Your task to perform on an android device: Open Android settings Image 0: 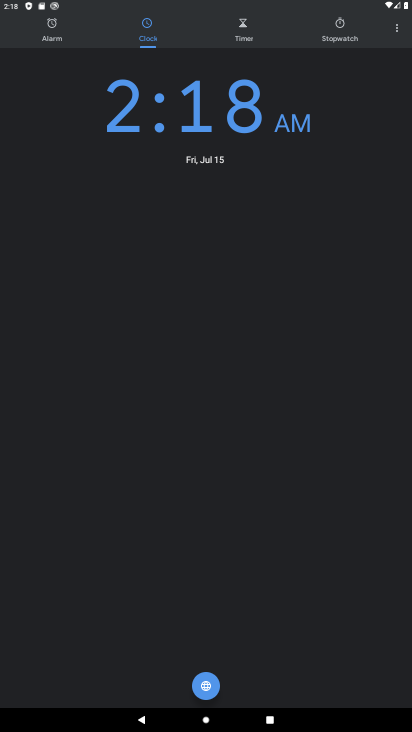
Step 0: press back button
Your task to perform on an android device: Open Android settings Image 1: 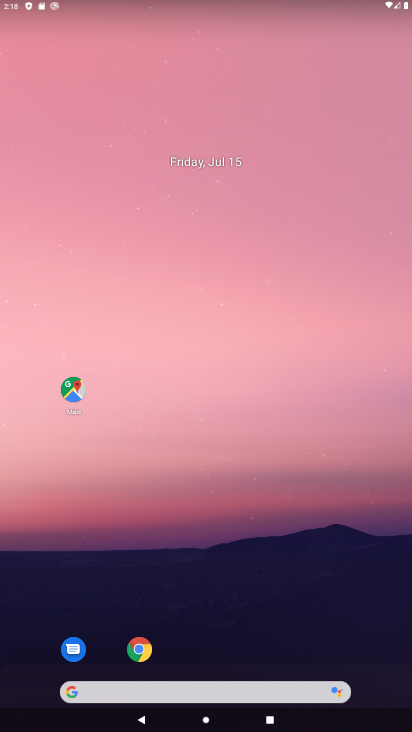
Step 1: drag from (204, 626) to (162, 27)
Your task to perform on an android device: Open Android settings Image 2: 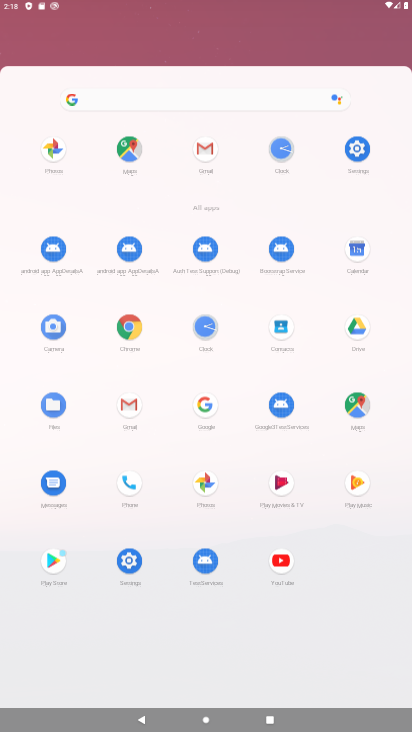
Step 2: click (214, 504)
Your task to perform on an android device: Open Android settings Image 3: 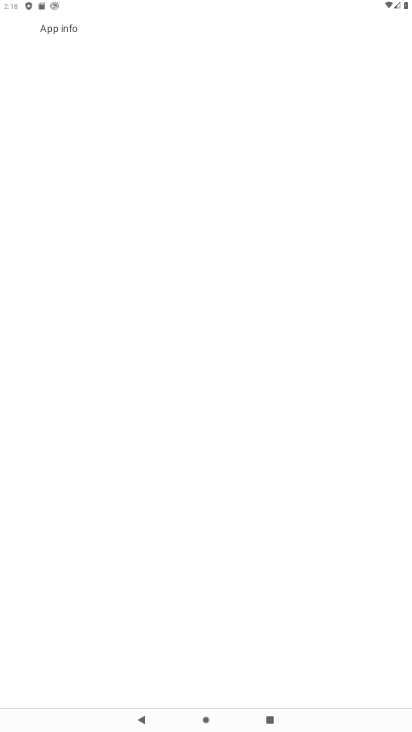
Step 3: press home button
Your task to perform on an android device: Open Android settings Image 4: 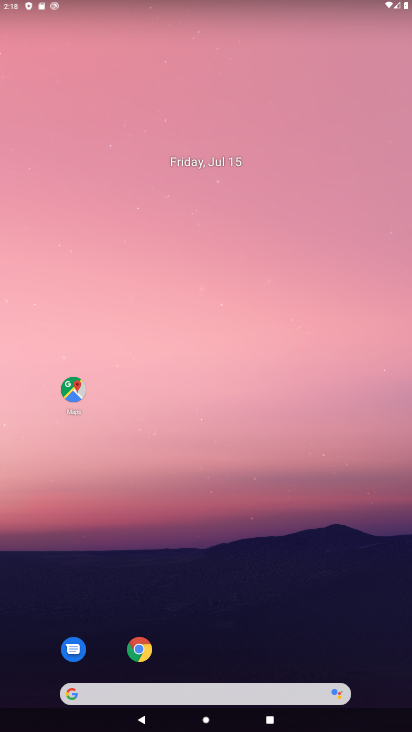
Step 4: click (191, 651)
Your task to perform on an android device: Open Android settings Image 5: 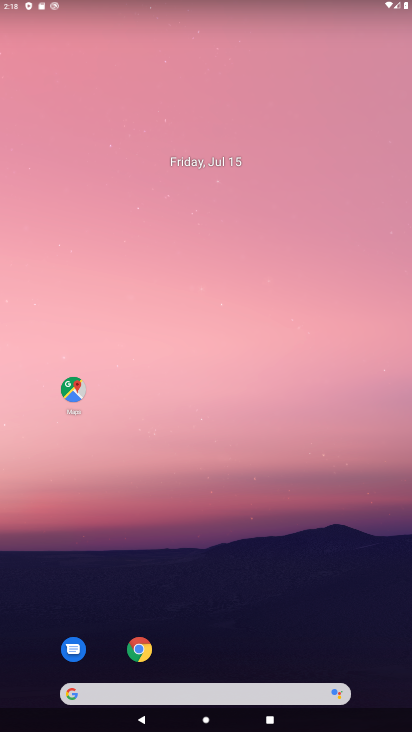
Step 5: drag from (185, 637) to (126, 37)
Your task to perform on an android device: Open Android settings Image 6: 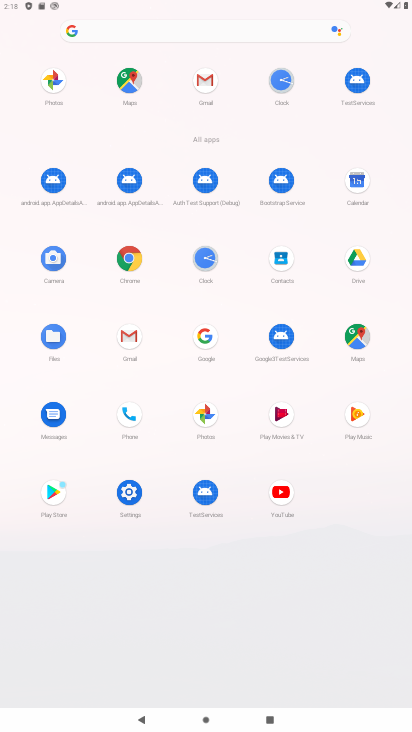
Step 6: click (131, 274)
Your task to perform on an android device: Open Android settings Image 7: 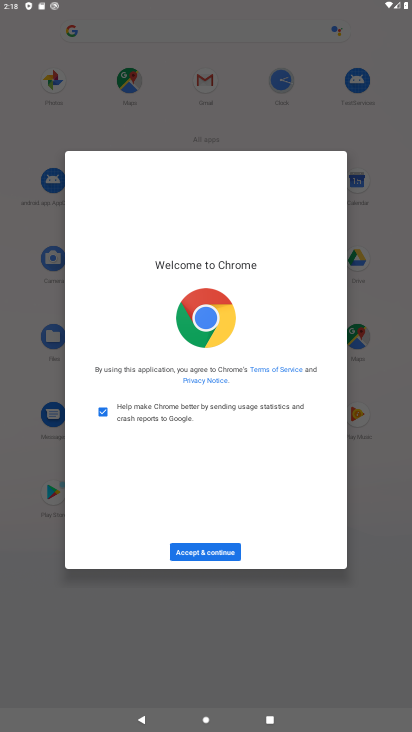
Step 7: press back button
Your task to perform on an android device: Open Android settings Image 8: 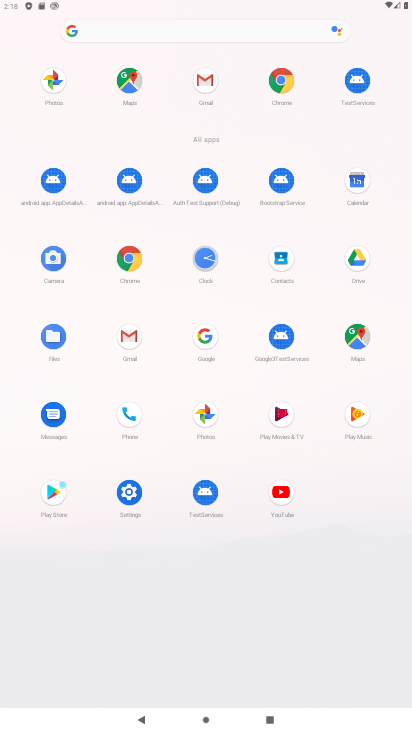
Step 8: click (136, 506)
Your task to perform on an android device: Open Android settings Image 9: 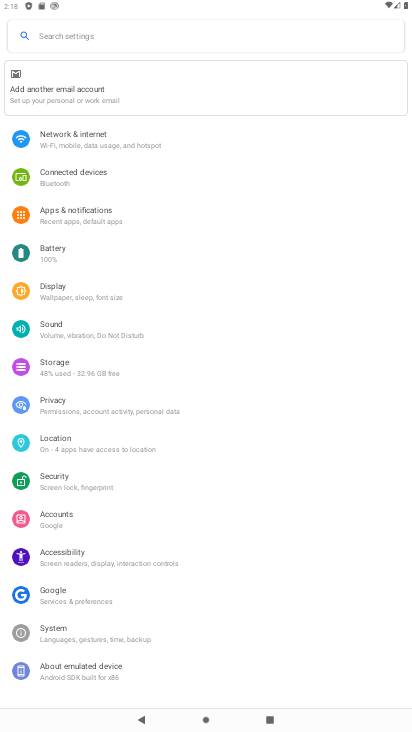
Step 9: click (45, 665)
Your task to perform on an android device: Open Android settings Image 10: 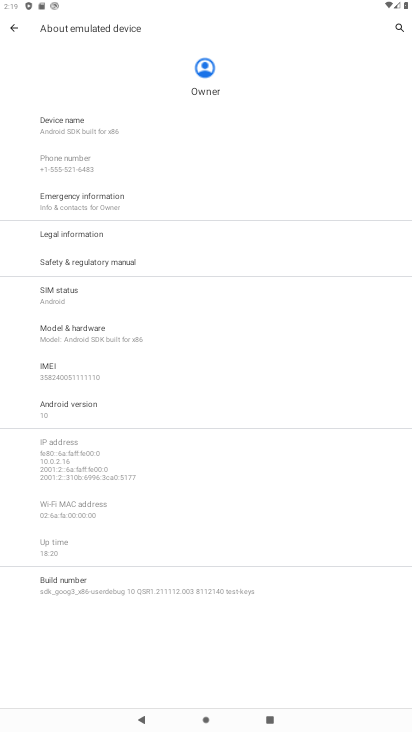
Step 10: click (73, 406)
Your task to perform on an android device: Open Android settings Image 11: 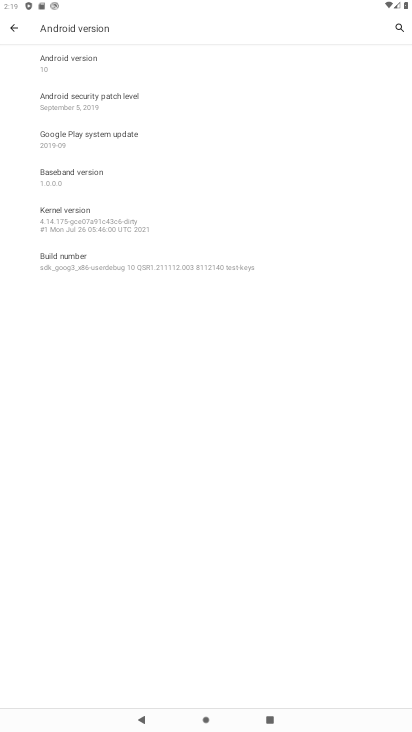
Step 11: task complete